Your task to perform on an android device: turn smart compose on in the gmail app Image 0: 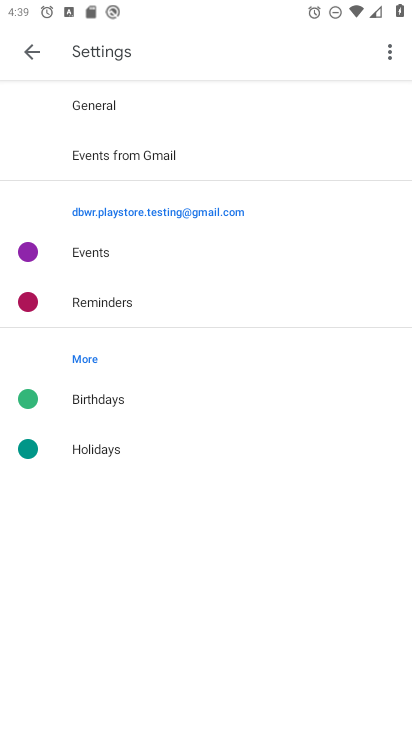
Step 0: press home button
Your task to perform on an android device: turn smart compose on in the gmail app Image 1: 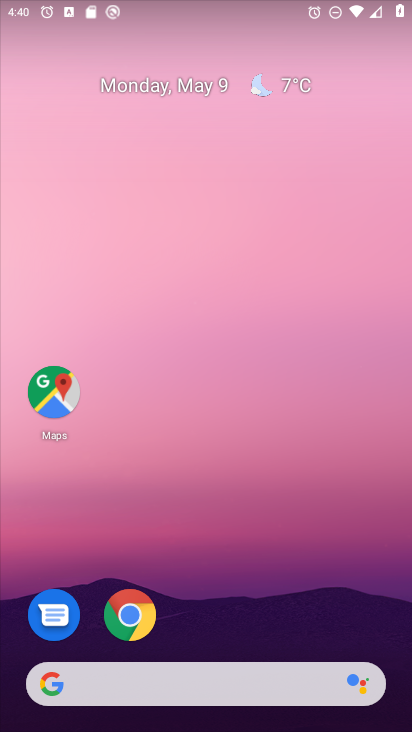
Step 1: drag from (380, 641) to (329, 29)
Your task to perform on an android device: turn smart compose on in the gmail app Image 2: 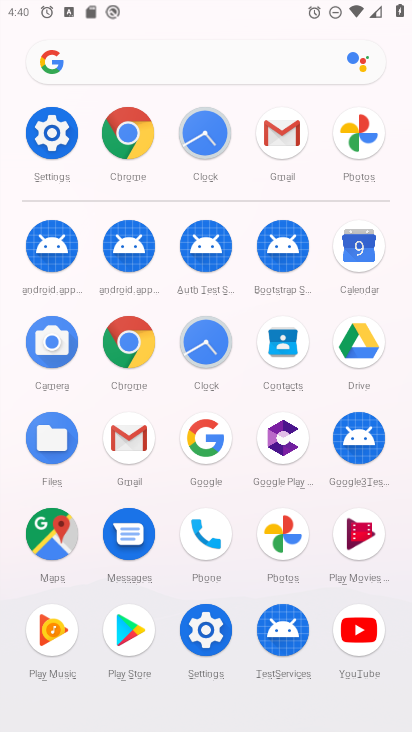
Step 2: click (126, 434)
Your task to perform on an android device: turn smart compose on in the gmail app Image 3: 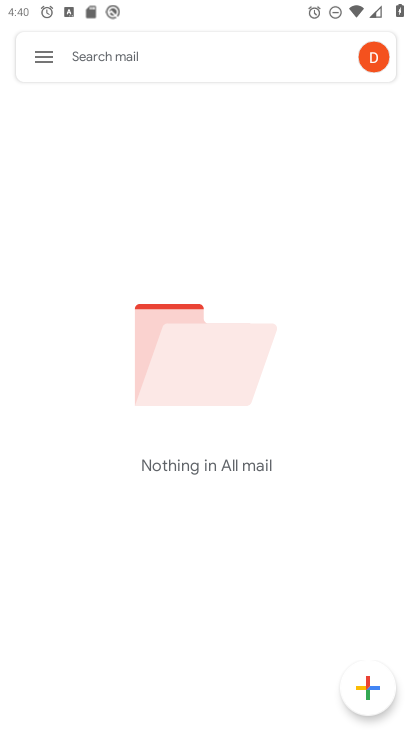
Step 3: click (39, 58)
Your task to perform on an android device: turn smart compose on in the gmail app Image 4: 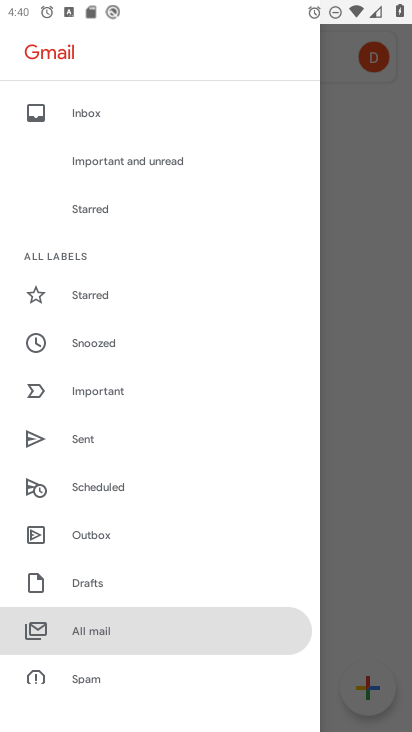
Step 4: drag from (237, 584) to (229, 121)
Your task to perform on an android device: turn smart compose on in the gmail app Image 5: 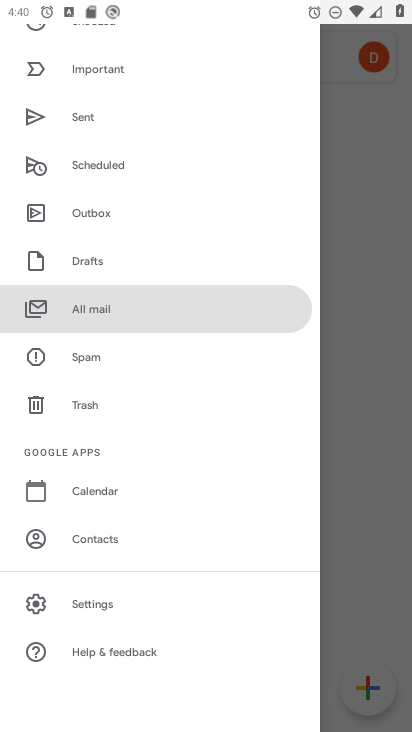
Step 5: click (83, 600)
Your task to perform on an android device: turn smart compose on in the gmail app Image 6: 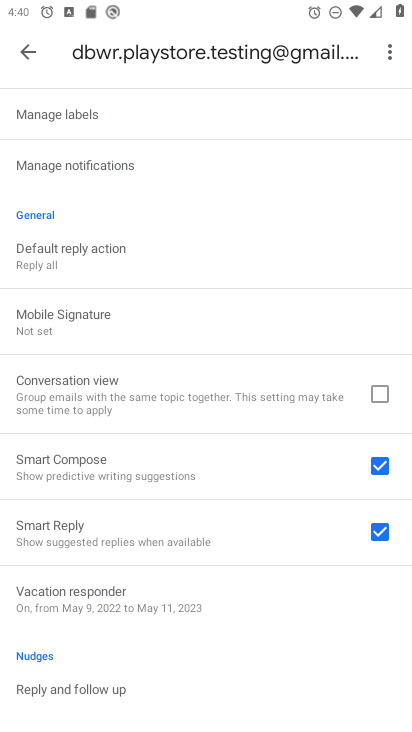
Step 6: task complete